Your task to perform on an android device: Open settings on Google Maps Image 0: 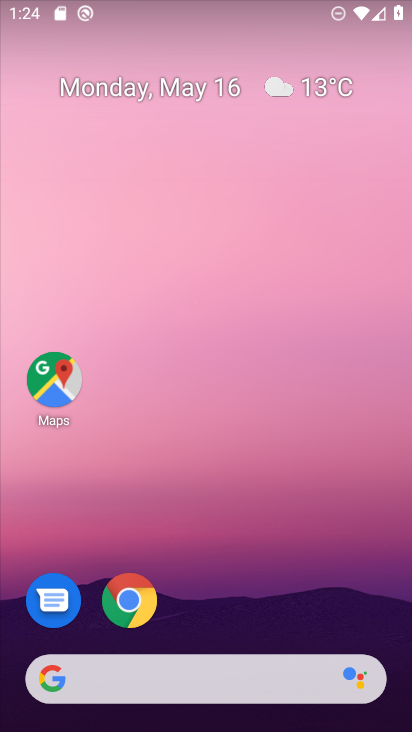
Step 0: drag from (217, 628) to (202, 28)
Your task to perform on an android device: Open settings on Google Maps Image 1: 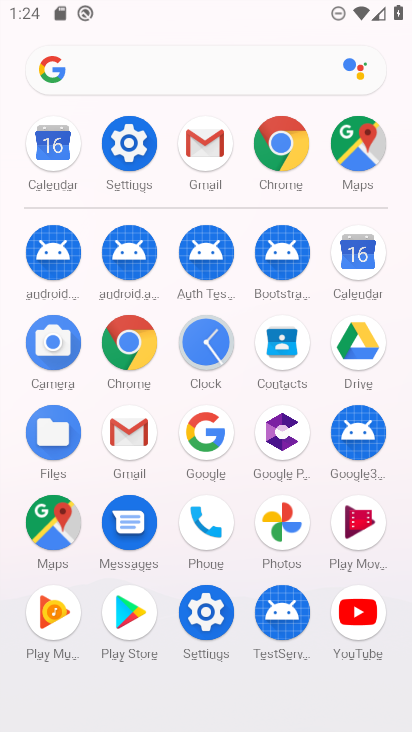
Step 1: click (53, 523)
Your task to perform on an android device: Open settings on Google Maps Image 2: 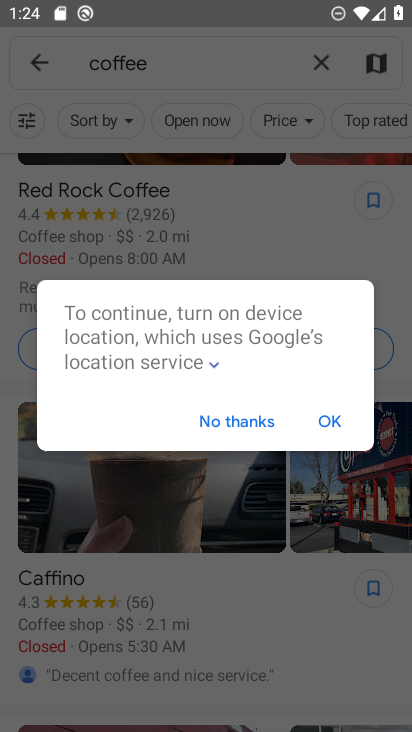
Step 2: click (236, 433)
Your task to perform on an android device: Open settings on Google Maps Image 3: 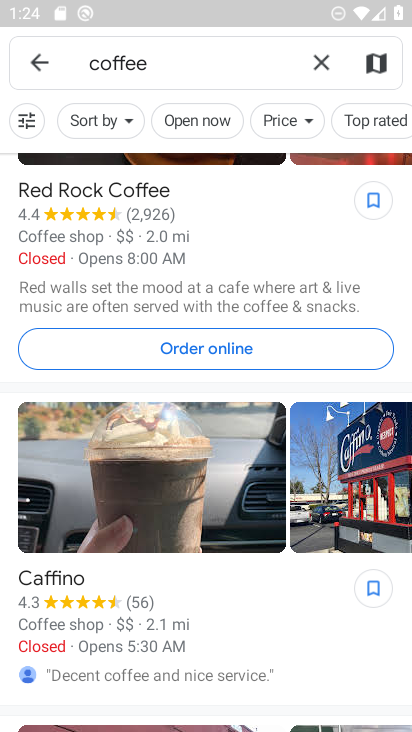
Step 3: click (44, 61)
Your task to perform on an android device: Open settings on Google Maps Image 4: 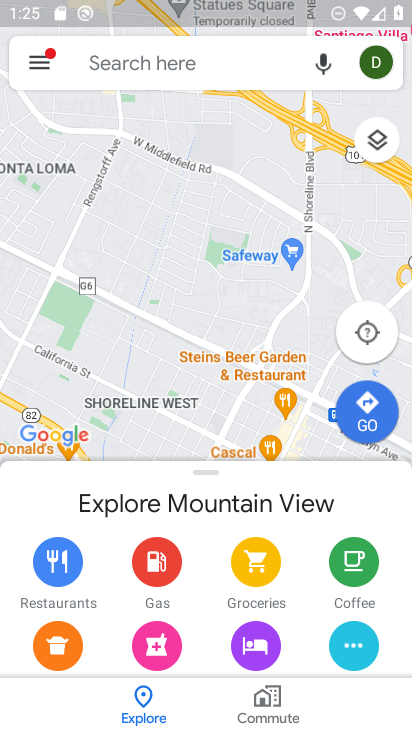
Step 4: click (32, 58)
Your task to perform on an android device: Open settings on Google Maps Image 5: 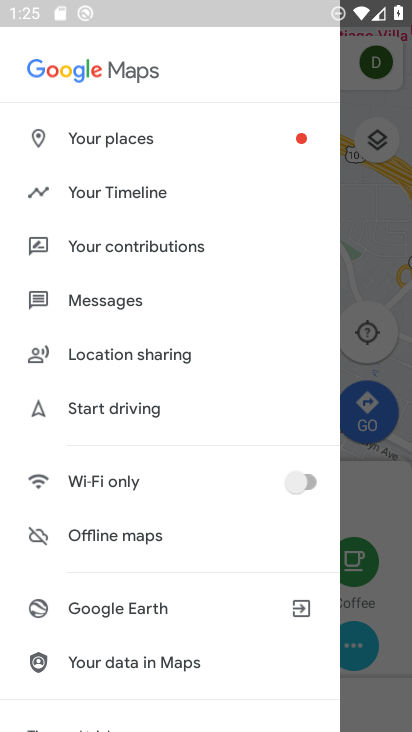
Step 5: drag from (136, 651) to (150, 79)
Your task to perform on an android device: Open settings on Google Maps Image 6: 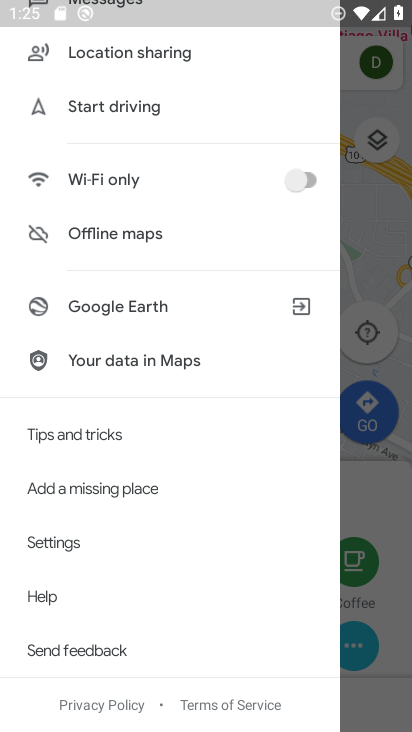
Step 6: click (89, 539)
Your task to perform on an android device: Open settings on Google Maps Image 7: 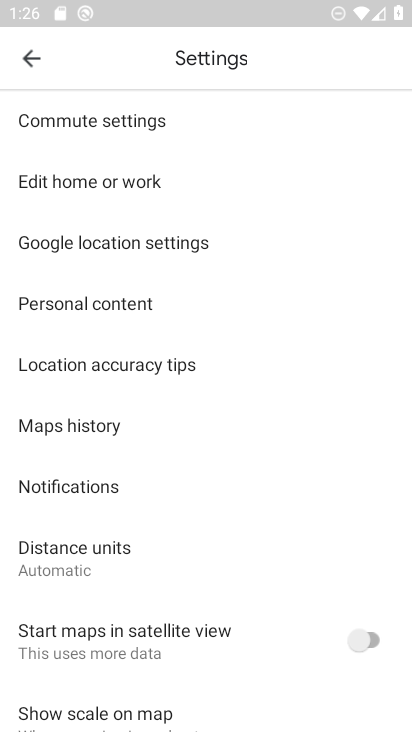
Step 7: task complete